Your task to perform on an android device: What's on my calendar today? Image 0: 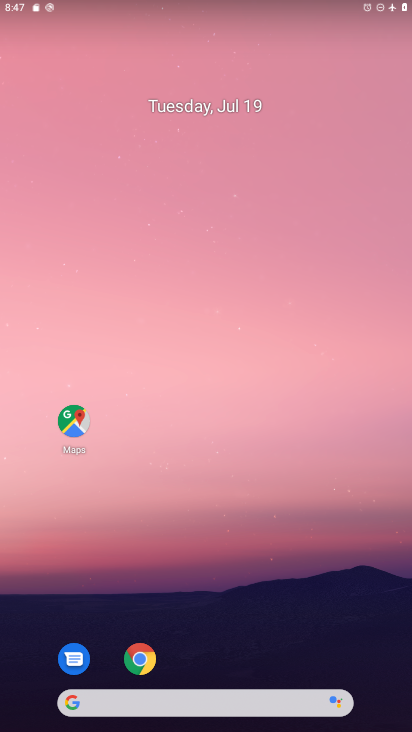
Step 0: drag from (276, 609) to (277, 169)
Your task to perform on an android device: What's on my calendar today? Image 1: 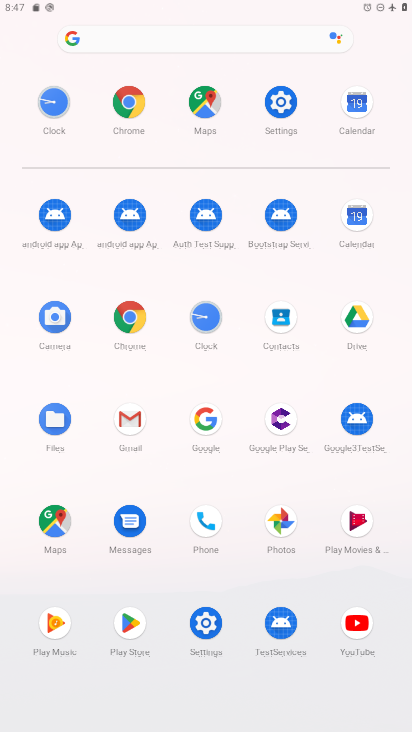
Step 1: click (356, 218)
Your task to perform on an android device: What's on my calendar today? Image 2: 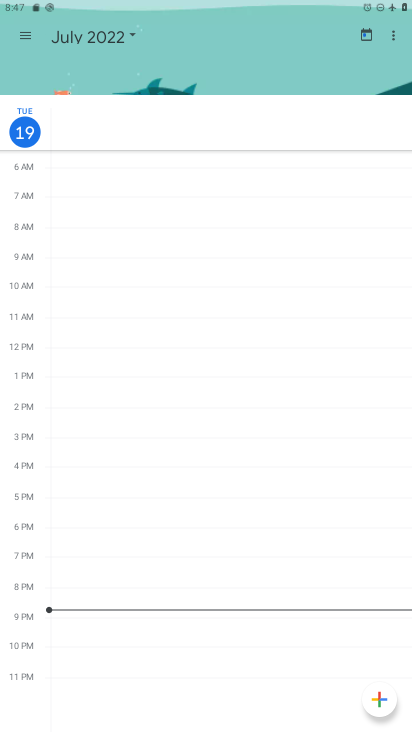
Step 2: drag from (25, 375) to (46, 75)
Your task to perform on an android device: What's on my calendar today? Image 3: 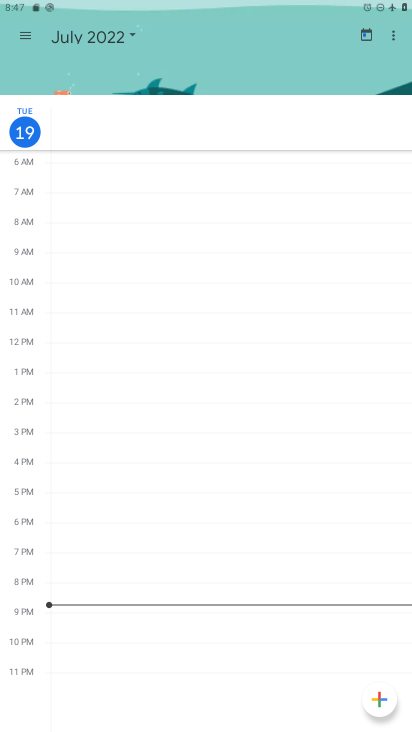
Step 3: drag from (0, 557) to (12, 454)
Your task to perform on an android device: What's on my calendar today? Image 4: 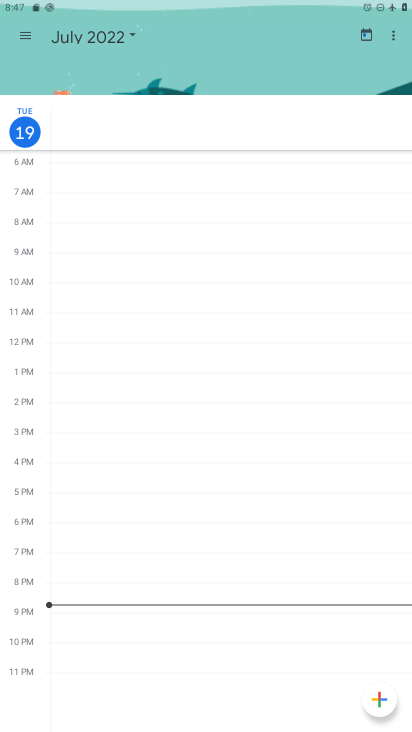
Step 4: click (24, 22)
Your task to perform on an android device: What's on my calendar today? Image 5: 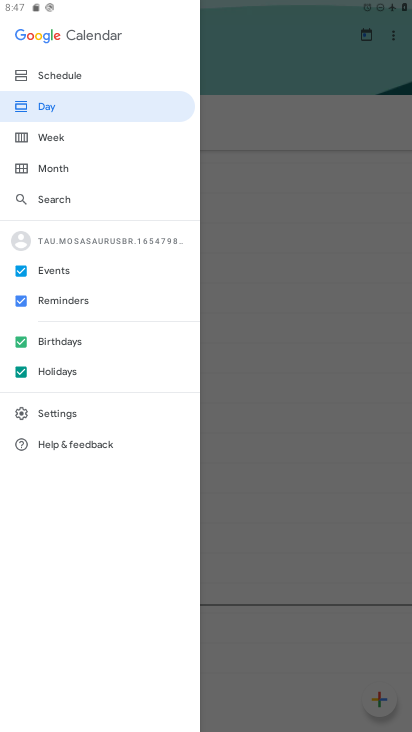
Step 5: click (69, 167)
Your task to perform on an android device: What's on my calendar today? Image 6: 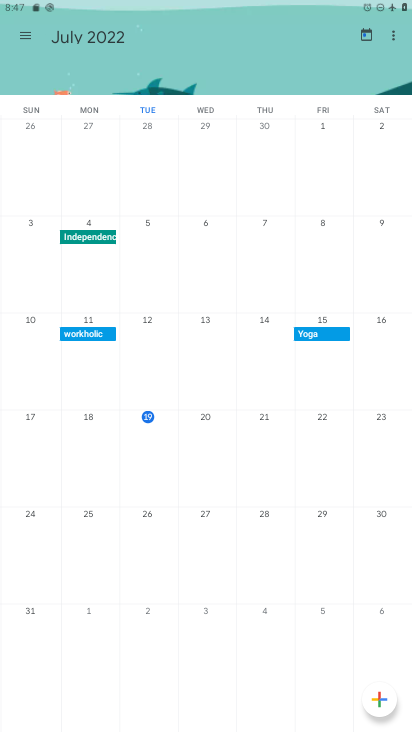
Step 6: click (203, 425)
Your task to perform on an android device: What's on my calendar today? Image 7: 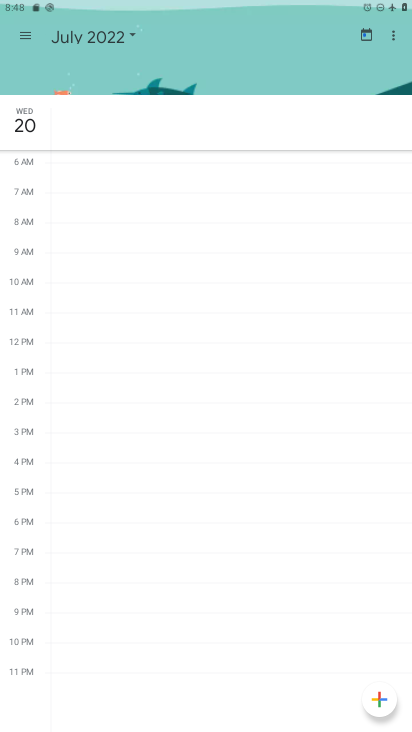
Step 7: task complete